Your task to perform on an android device: turn on javascript in the chrome app Image 0: 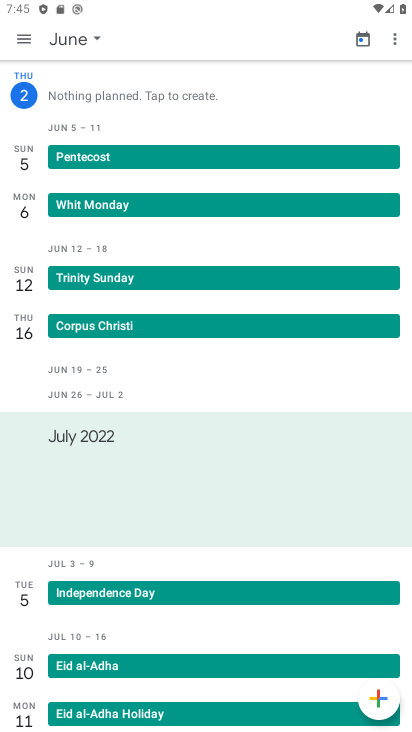
Step 0: press back button
Your task to perform on an android device: turn on javascript in the chrome app Image 1: 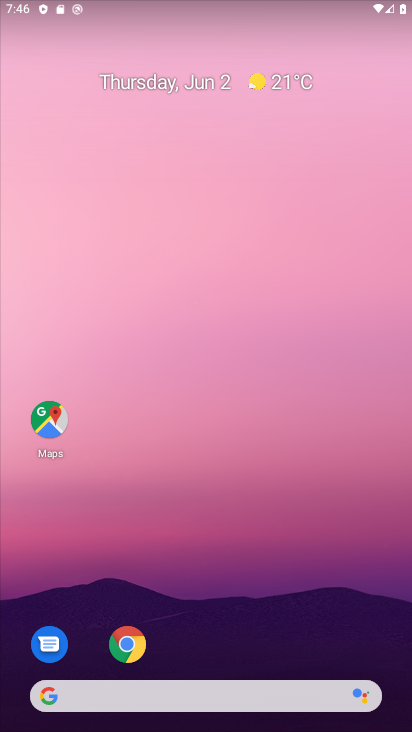
Step 1: drag from (280, 586) to (206, 11)
Your task to perform on an android device: turn on javascript in the chrome app Image 2: 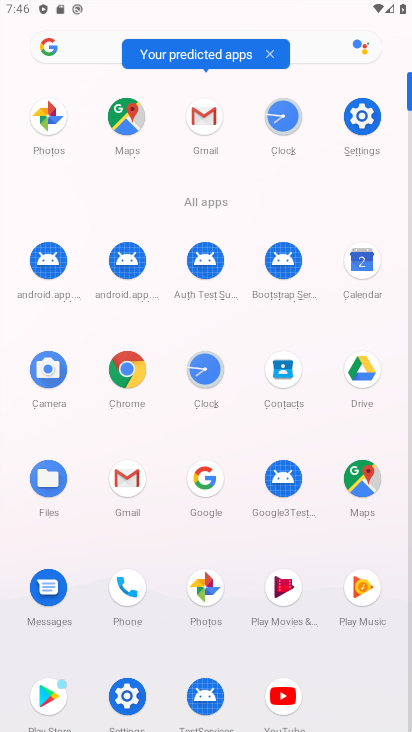
Step 2: click (126, 366)
Your task to perform on an android device: turn on javascript in the chrome app Image 3: 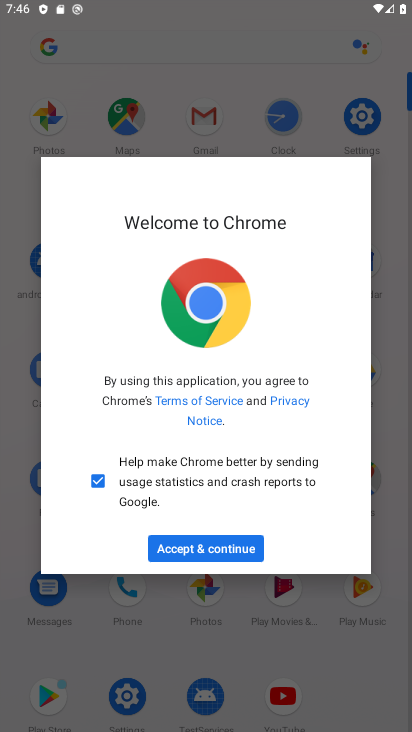
Step 3: click (183, 543)
Your task to perform on an android device: turn on javascript in the chrome app Image 4: 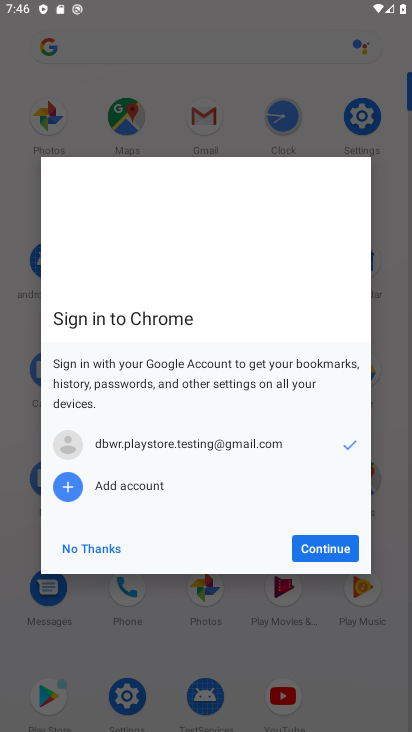
Step 4: click (313, 547)
Your task to perform on an android device: turn on javascript in the chrome app Image 5: 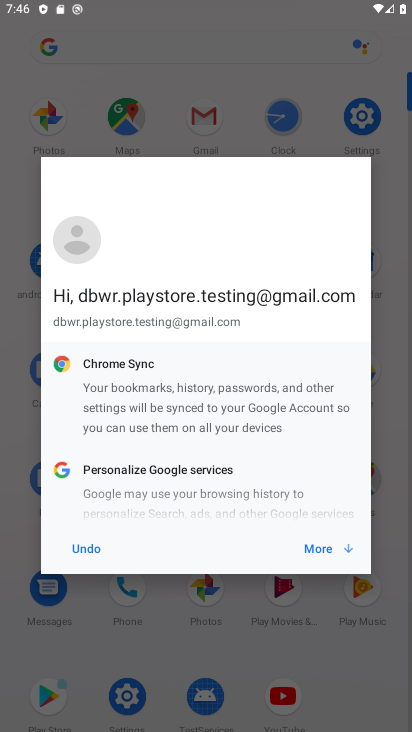
Step 5: click (305, 549)
Your task to perform on an android device: turn on javascript in the chrome app Image 6: 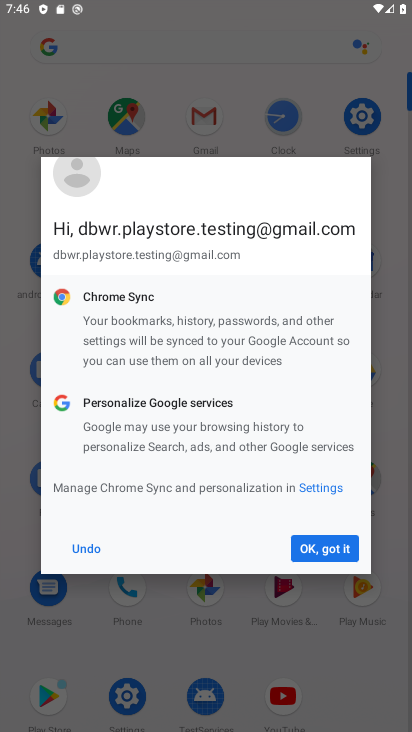
Step 6: click (314, 546)
Your task to perform on an android device: turn on javascript in the chrome app Image 7: 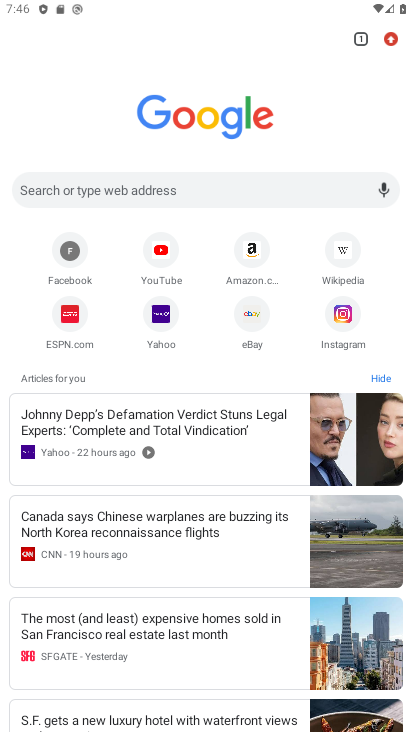
Step 7: drag from (352, 82) to (343, 272)
Your task to perform on an android device: turn on javascript in the chrome app Image 8: 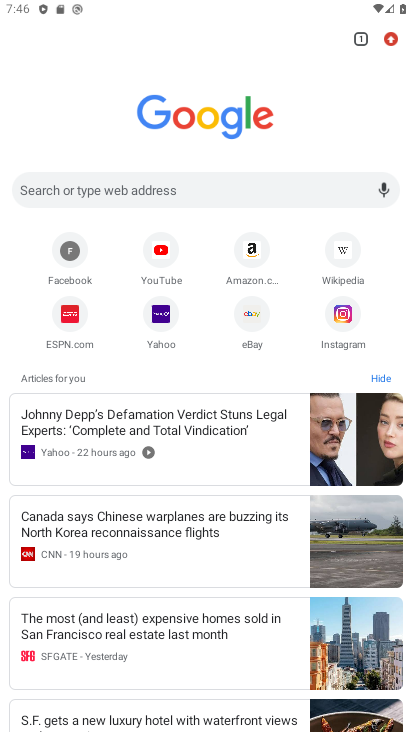
Step 8: click (390, 38)
Your task to perform on an android device: turn on javascript in the chrome app Image 9: 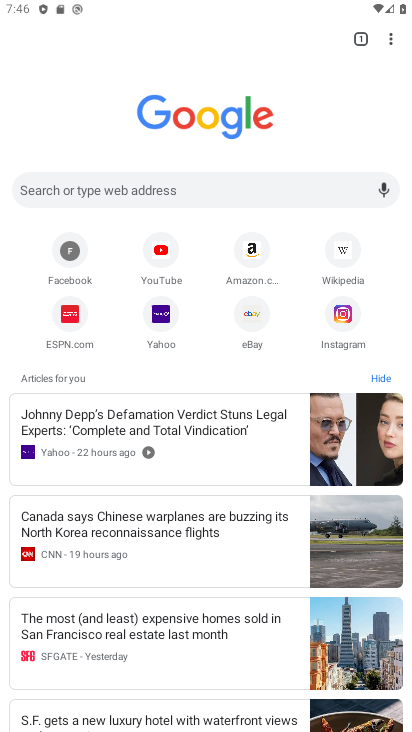
Step 9: drag from (387, 37) to (256, 376)
Your task to perform on an android device: turn on javascript in the chrome app Image 10: 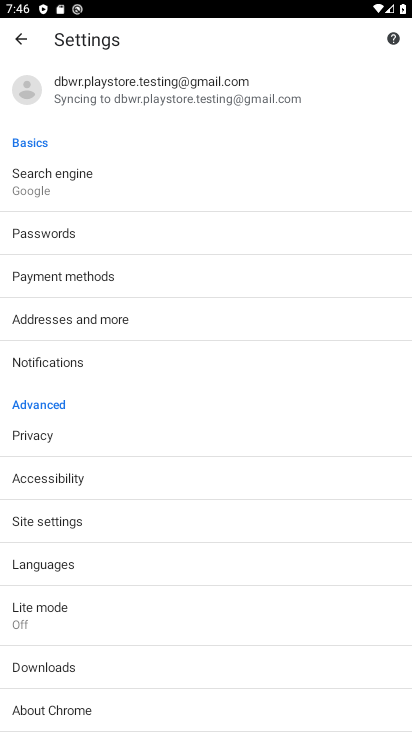
Step 10: click (47, 525)
Your task to perform on an android device: turn on javascript in the chrome app Image 11: 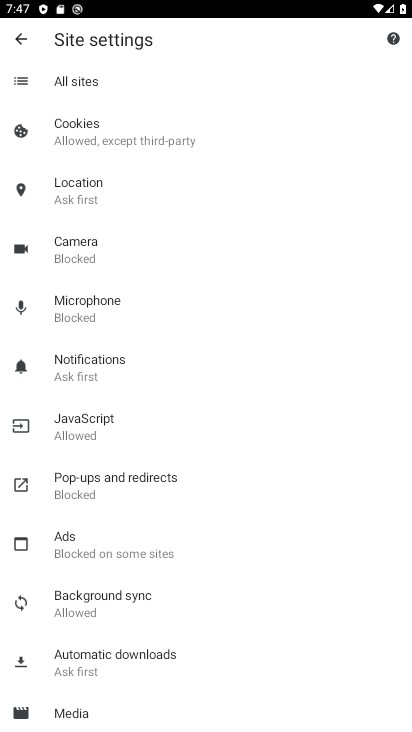
Step 11: click (100, 434)
Your task to perform on an android device: turn on javascript in the chrome app Image 12: 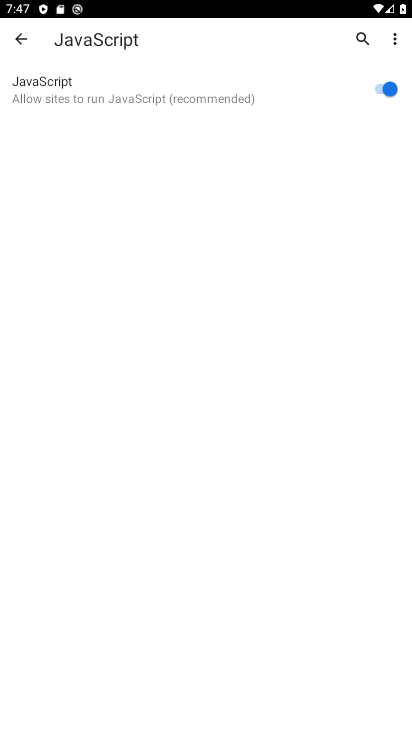
Step 12: task complete